Your task to perform on an android device: check data usage Image 0: 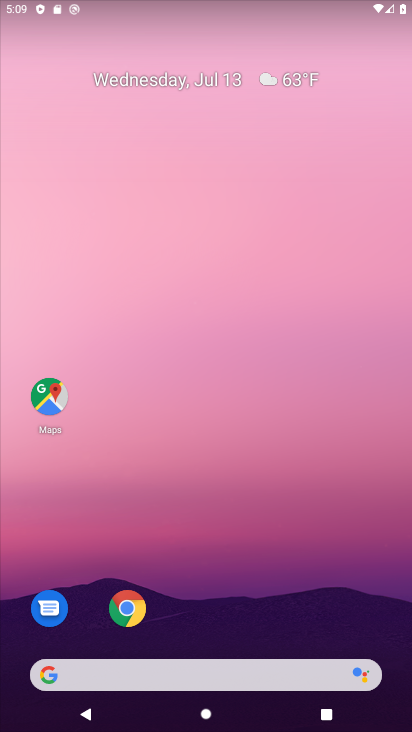
Step 0: drag from (324, 546) to (312, 125)
Your task to perform on an android device: check data usage Image 1: 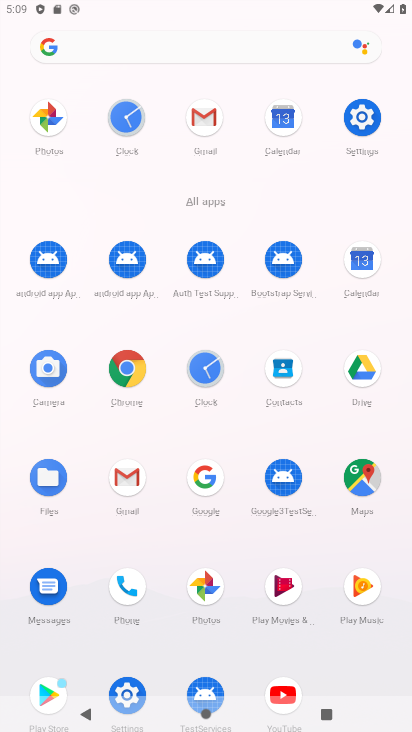
Step 1: click (351, 101)
Your task to perform on an android device: check data usage Image 2: 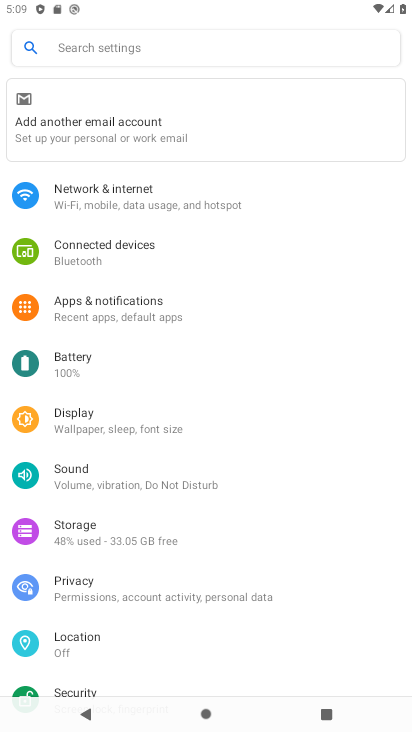
Step 2: click (120, 204)
Your task to perform on an android device: check data usage Image 3: 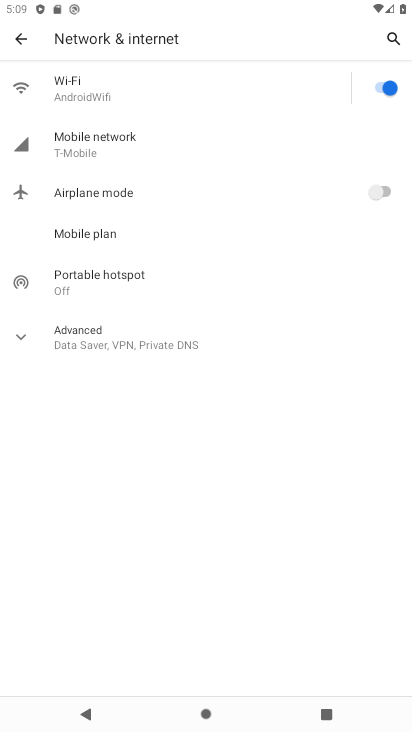
Step 3: click (96, 142)
Your task to perform on an android device: check data usage Image 4: 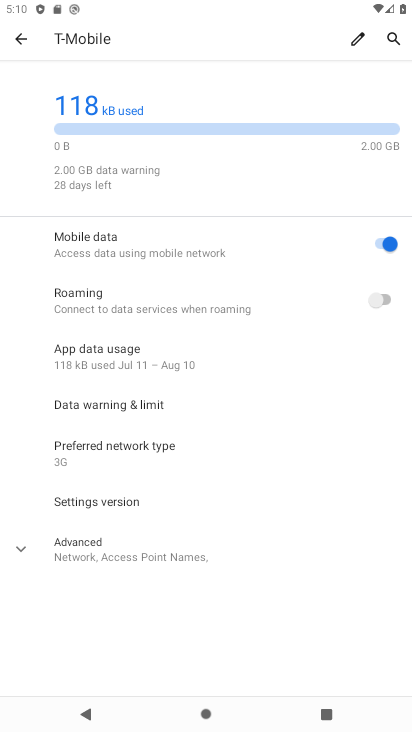
Step 4: task complete